Your task to perform on an android device: Go to settings Image 0: 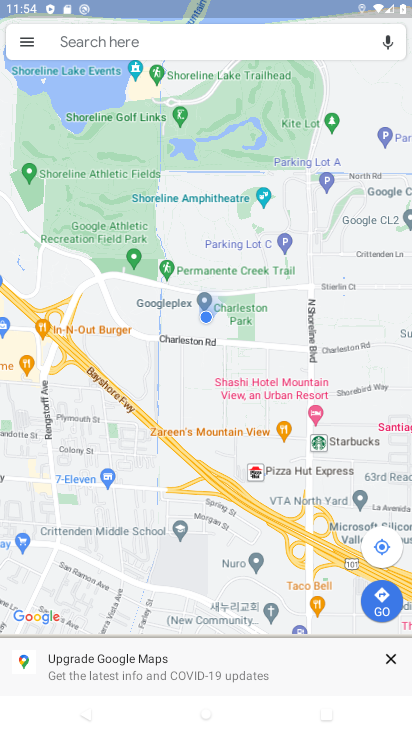
Step 0: press back button
Your task to perform on an android device: Go to settings Image 1: 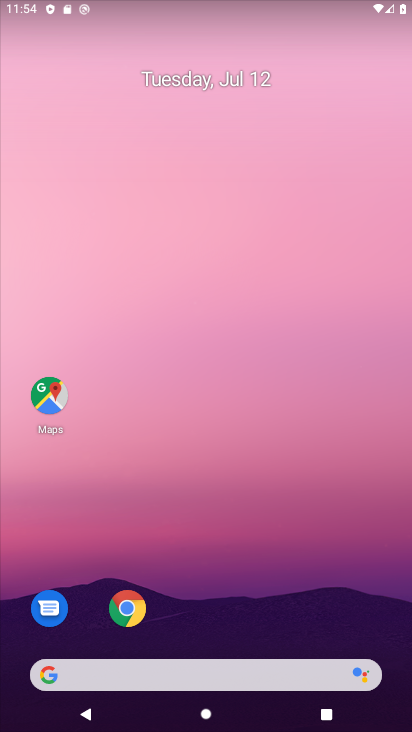
Step 1: drag from (240, 627) to (302, 7)
Your task to perform on an android device: Go to settings Image 2: 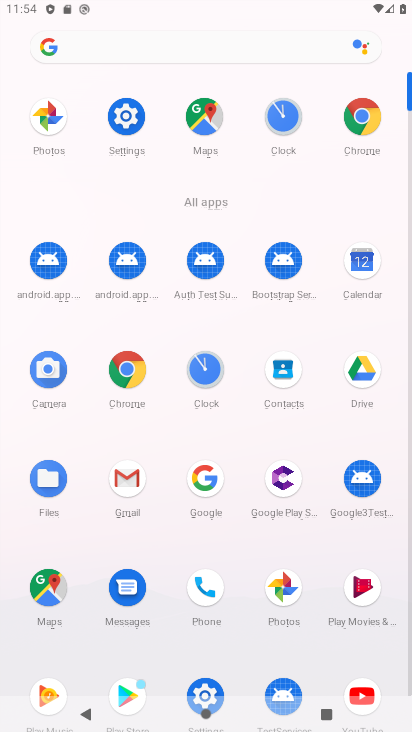
Step 2: click (135, 112)
Your task to perform on an android device: Go to settings Image 3: 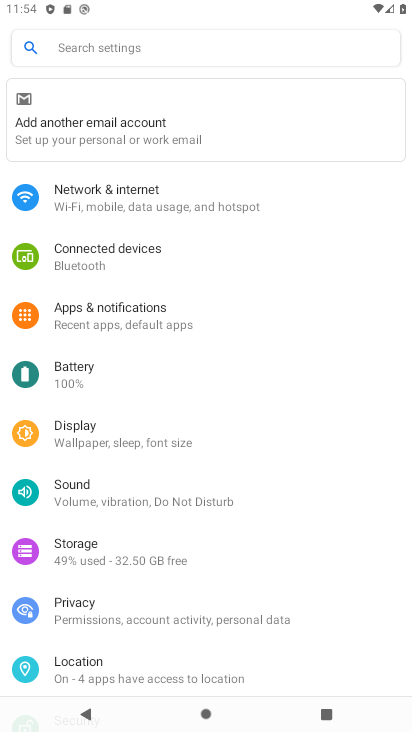
Step 3: task complete